Your task to perform on an android device: Show me popular videos on Youtube Image 0: 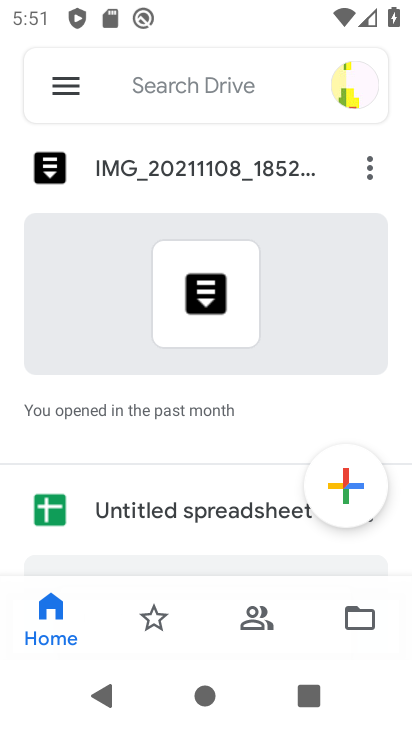
Step 0: press home button
Your task to perform on an android device: Show me popular videos on Youtube Image 1: 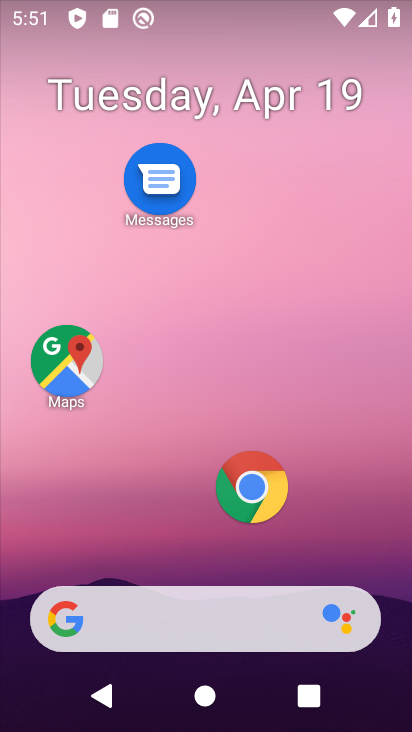
Step 1: drag from (194, 554) to (253, 5)
Your task to perform on an android device: Show me popular videos on Youtube Image 2: 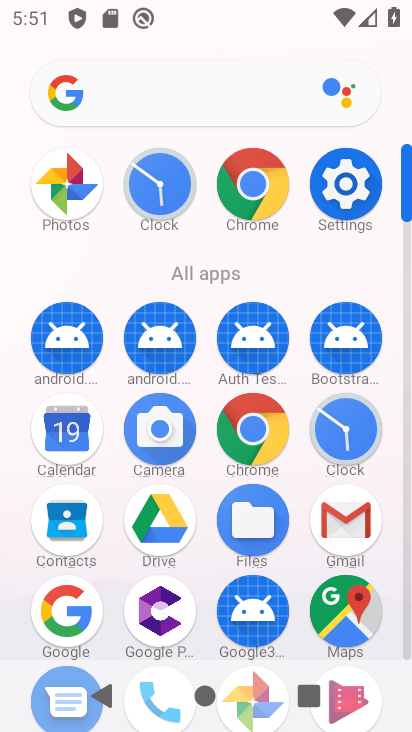
Step 2: drag from (199, 574) to (207, 176)
Your task to perform on an android device: Show me popular videos on Youtube Image 3: 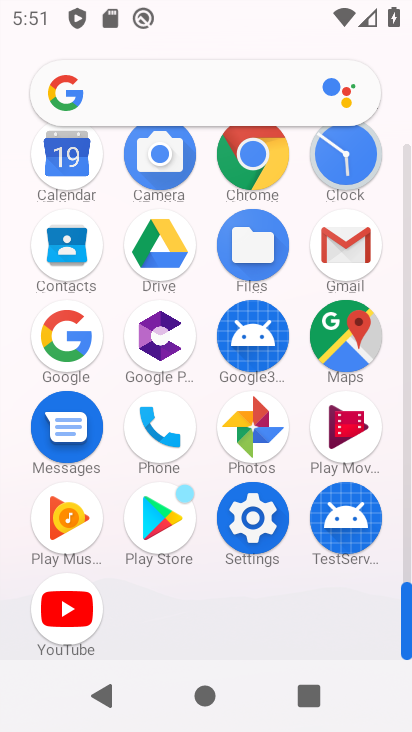
Step 3: click (63, 604)
Your task to perform on an android device: Show me popular videos on Youtube Image 4: 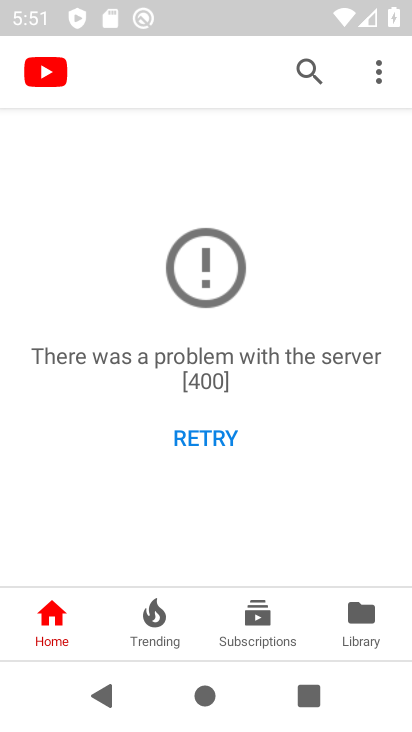
Step 4: click (154, 613)
Your task to perform on an android device: Show me popular videos on Youtube Image 5: 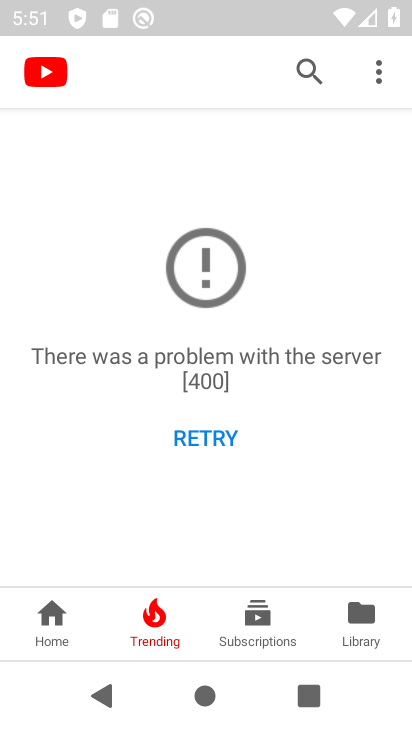
Step 5: task complete